Your task to perform on an android device: Go to eBay Image 0: 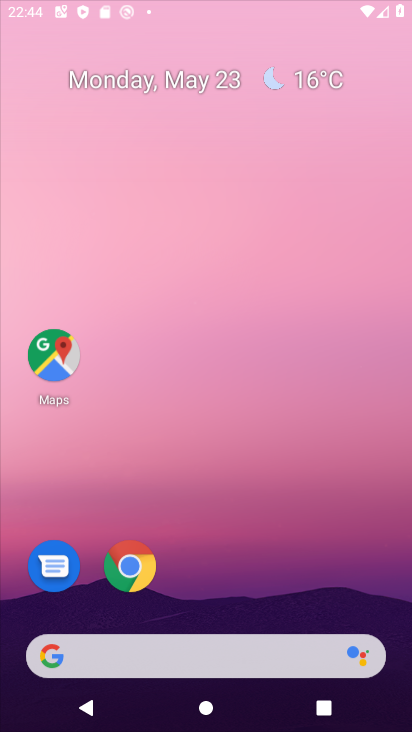
Step 0: click (374, 26)
Your task to perform on an android device: Go to eBay Image 1: 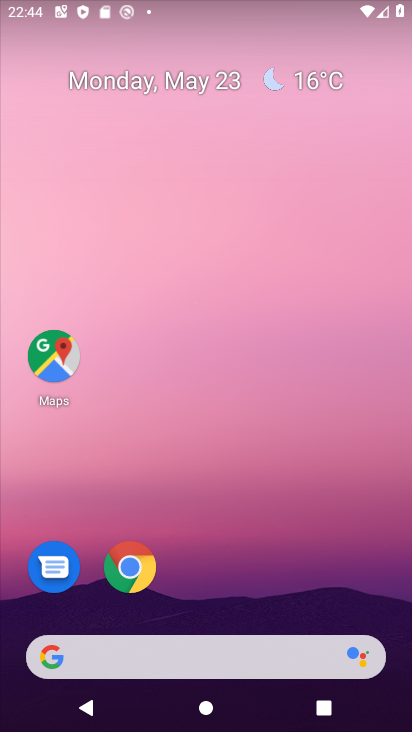
Step 1: drag from (189, 601) to (215, 271)
Your task to perform on an android device: Go to eBay Image 2: 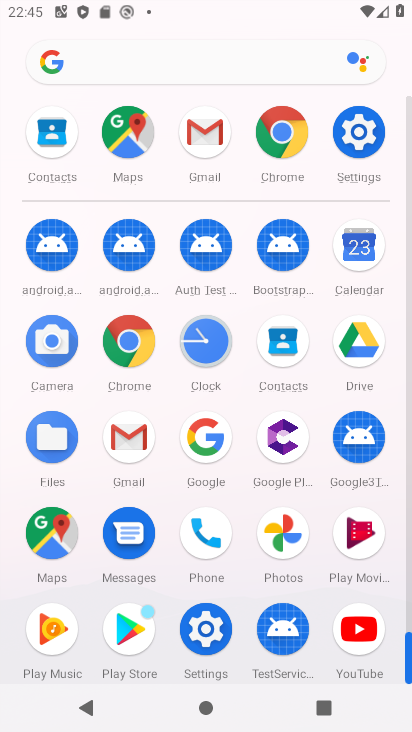
Step 2: click (183, 78)
Your task to perform on an android device: Go to eBay Image 3: 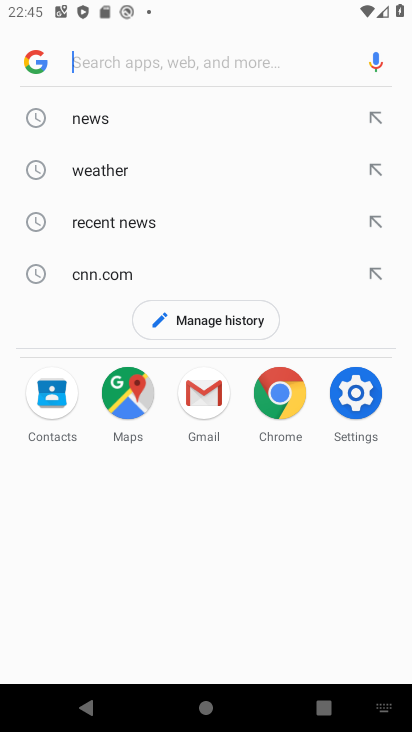
Step 3: type "ebay"
Your task to perform on an android device: Go to eBay Image 4: 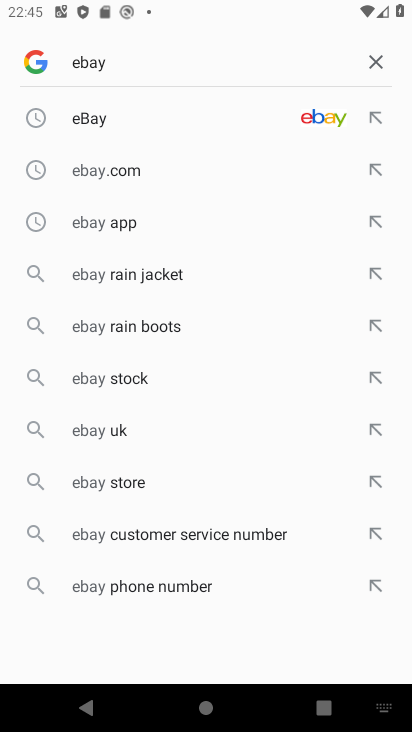
Step 4: click (259, 114)
Your task to perform on an android device: Go to eBay Image 5: 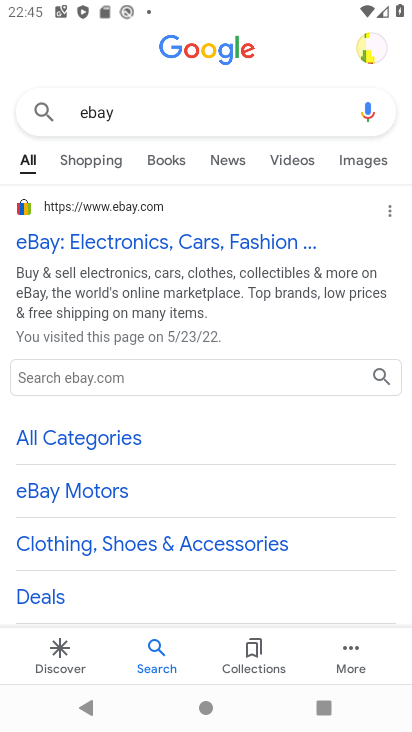
Step 5: click (138, 241)
Your task to perform on an android device: Go to eBay Image 6: 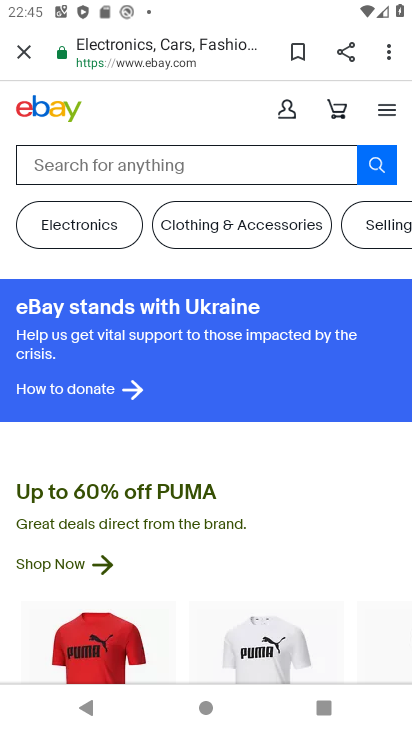
Step 6: task complete